Your task to perform on an android device: change notifications settings Image 0: 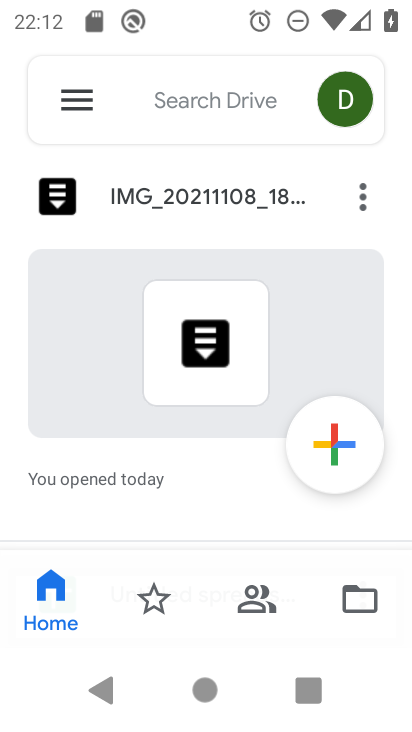
Step 0: press home button
Your task to perform on an android device: change notifications settings Image 1: 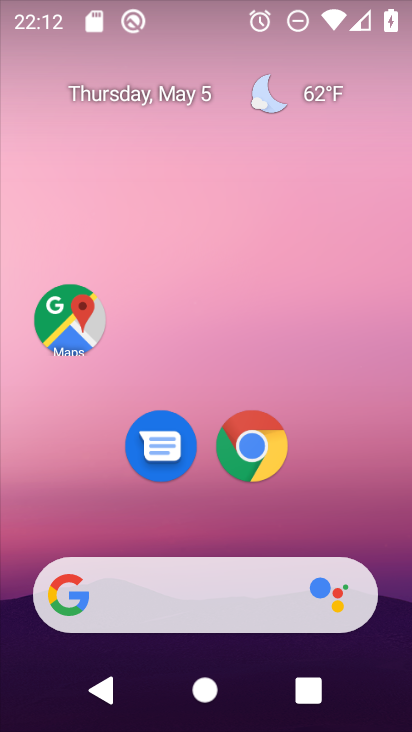
Step 1: drag from (303, 642) to (250, 343)
Your task to perform on an android device: change notifications settings Image 2: 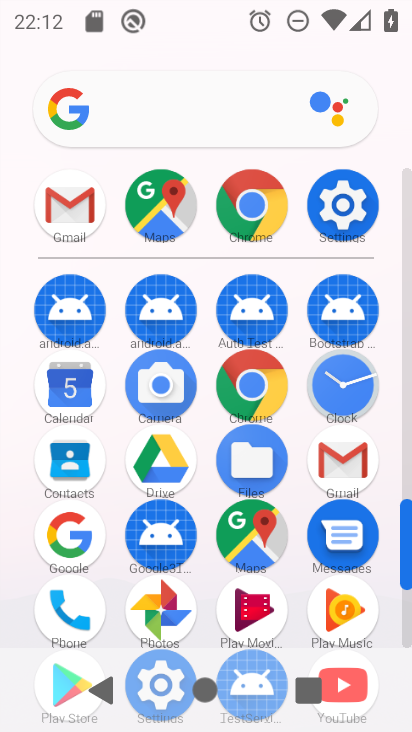
Step 2: click (243, 229)
Your task to perform on an android device: change notifications settings Image 3: 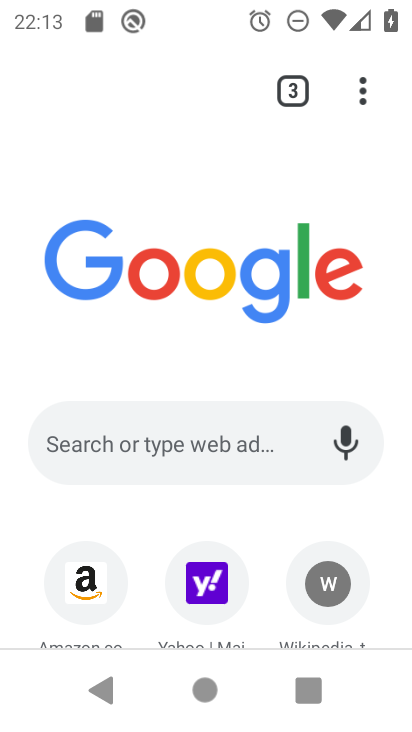
Step 3: press home button
Your task to perform on an android device: change notifications settings Image 4: 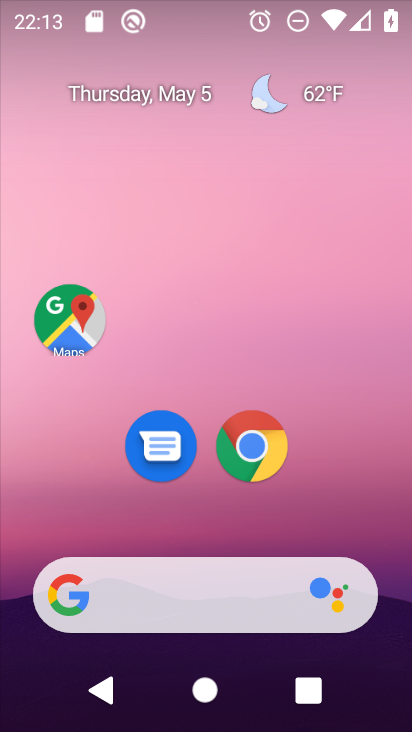
Step 4: drag from (323, 545) to (257, 247)
Your task to perform on an android device: change notifications settings Image 5: 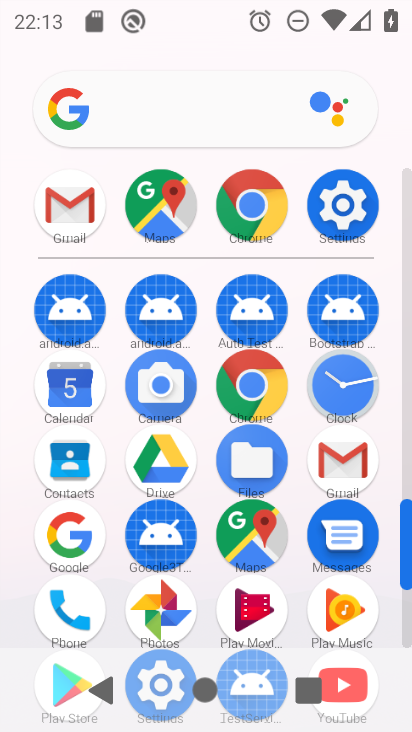
Step 5: click (340, 173)
Your task to perform on an android device: change notifications settings Image 6: 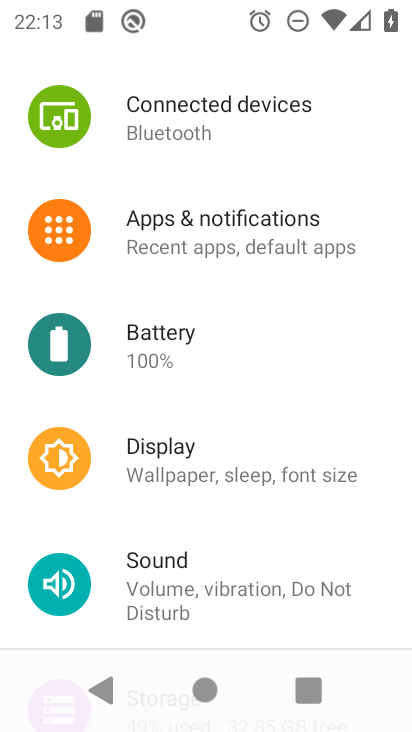
Step 6: drag from (57, 277) to (175, 543)
Your task to perform on an android device: change notifications settings Image 7: 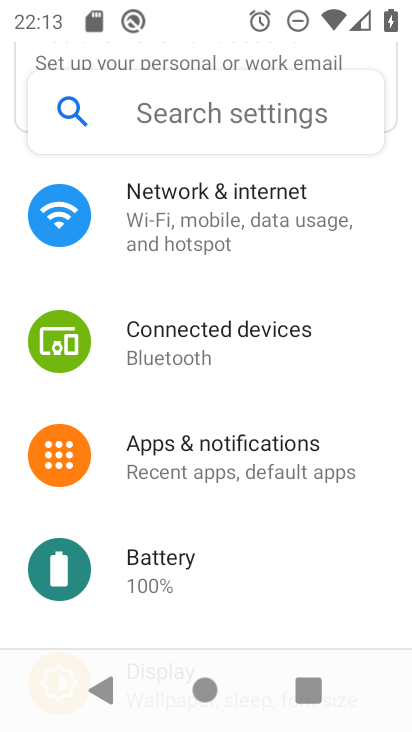
Step 7: click (207, 120)
Your task to perform on an android device: change notifications settings Image 8: 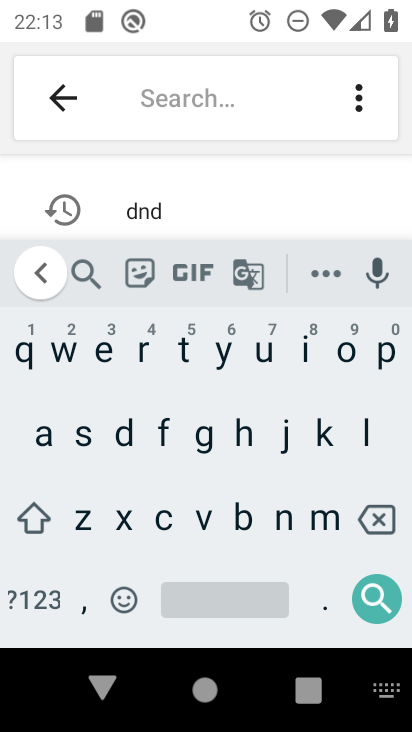
Step 8: click (279, 520)
Your task to perform on an android device: change notifications settings Image 9: 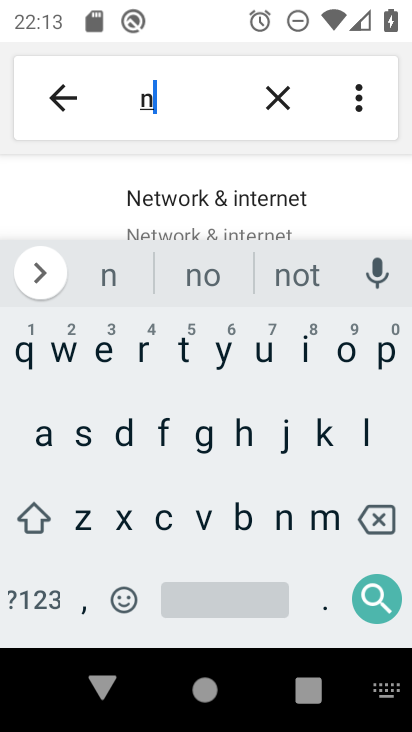
Step 9: click (337, 356)
Your task to perform on an android device: change notifications settings Image 10: 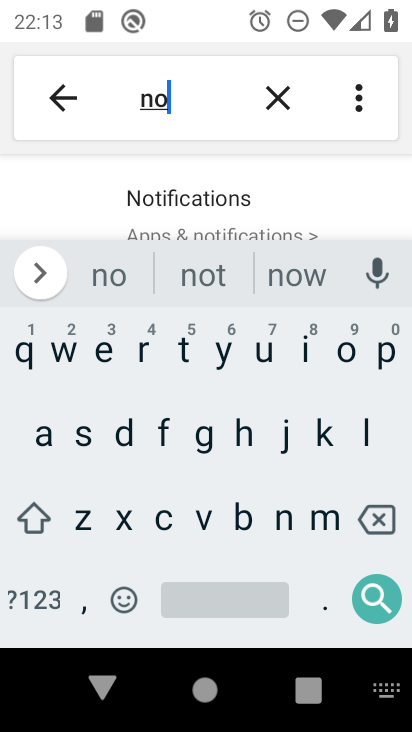
Step 10: click (231, 209)
Your task to perform on an android device: change notifications settings Image 11: 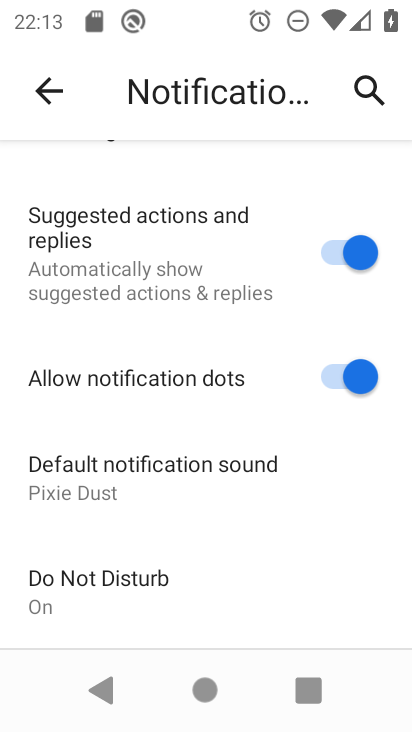
Step 11: drag from (166, 531) to (194, 333)
Your task to perform on an android device: change notifications settings Image 12: 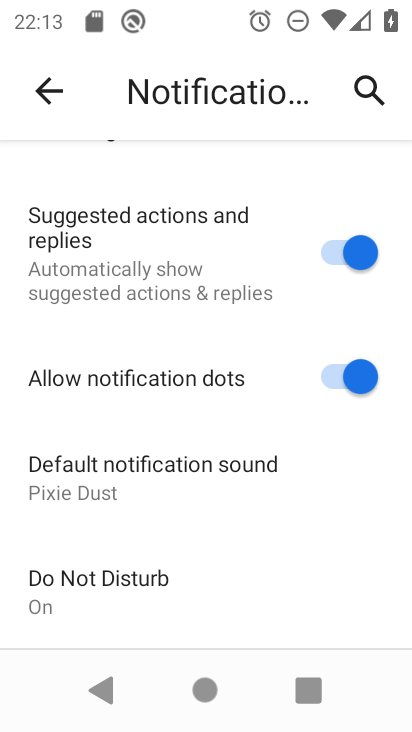
Step 12: drag from (176, 393) to (141, 595)
Your task to perform on an android device: change notifications settings Image 13: 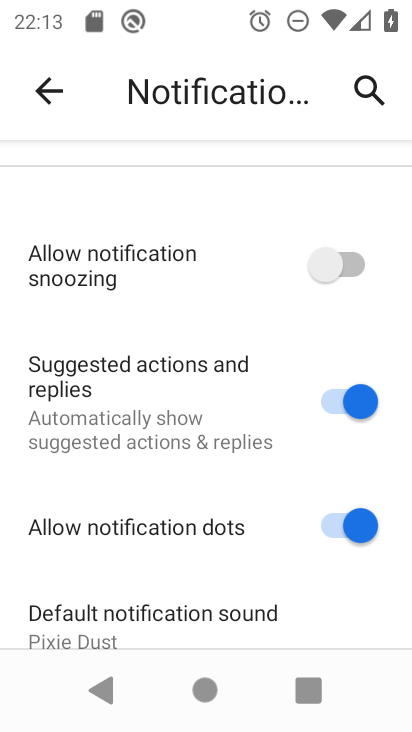
Step 13: drag from (179, 315) to (155, 543)
Your task to perform on an android device: change notifications settings Image 14: 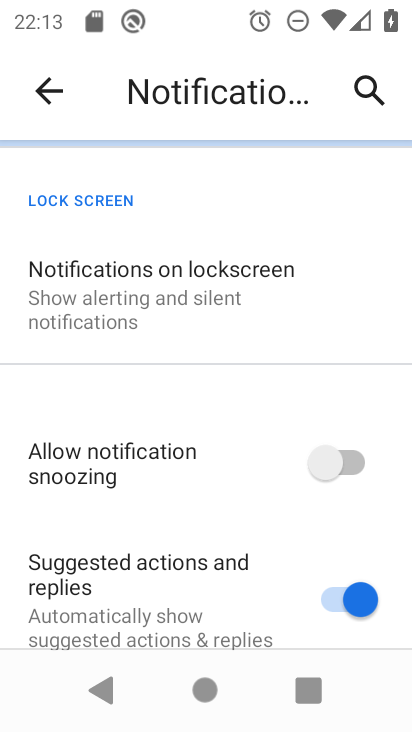
Step 14: click (169, 318)
Your task to perform on an android device: change notifications settings Image 15: 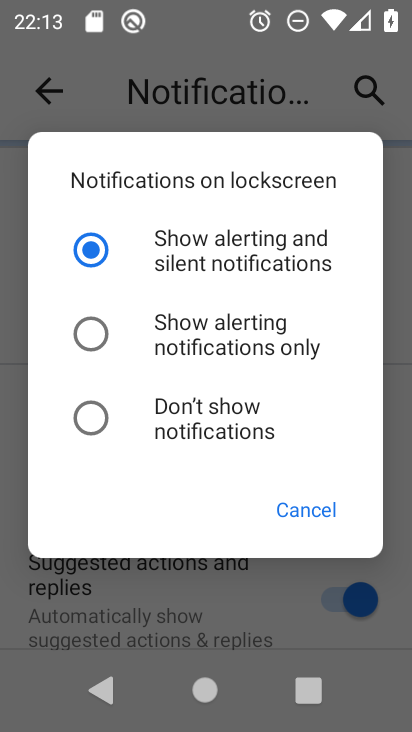
Step 15: click (195, 346)
Your task to perform on an android device: change notifications settings Image 16: 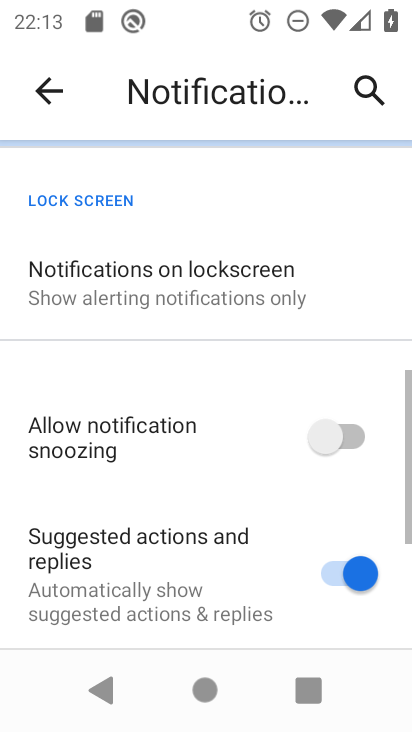
Step 16: task complete